Your task to perform on an android device: Go to ESPN.com Image 0: 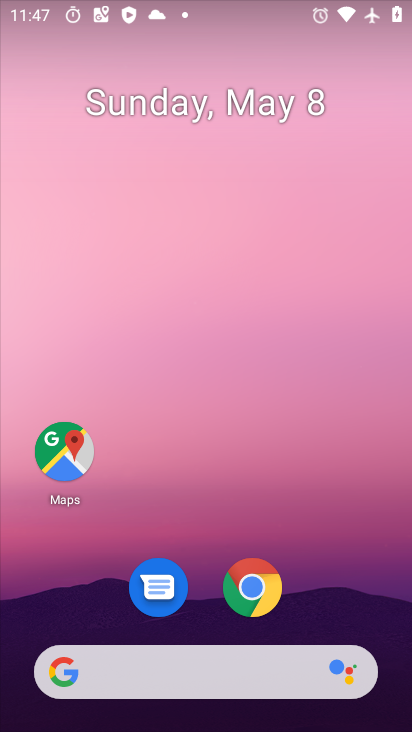
Step 0: click (263, 589)
Your task to perform on an android device: Go to ESPN.com Image 1: 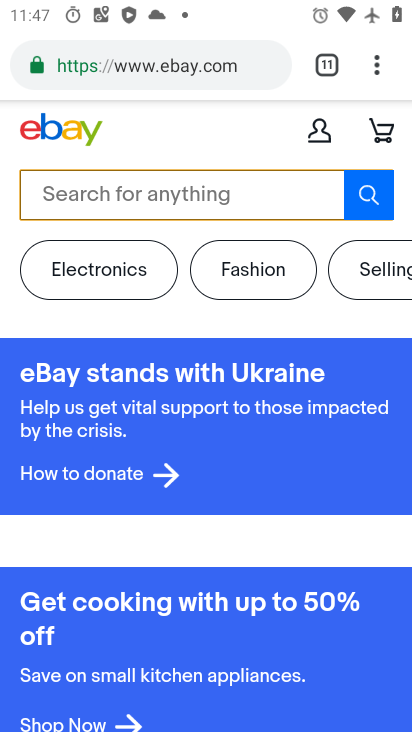
Step 1: drag from (379, 62) to (116, 132)
Your task to perform on an android device: Go to ESPN.com Image 2: 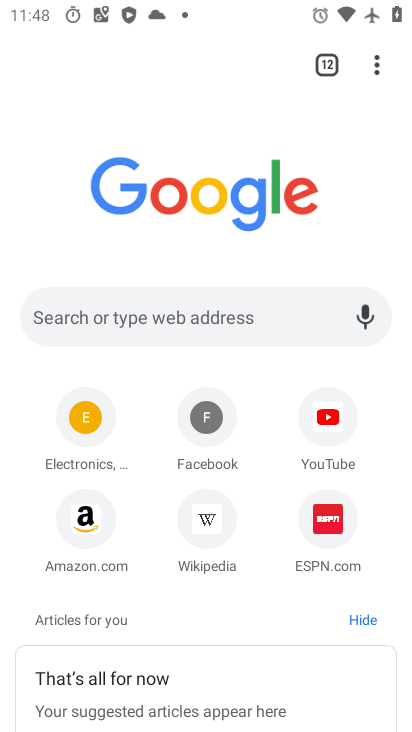
Step 2: click (320, 520)
Your task to perform on an android device: Go to ESPN.com Image 3: 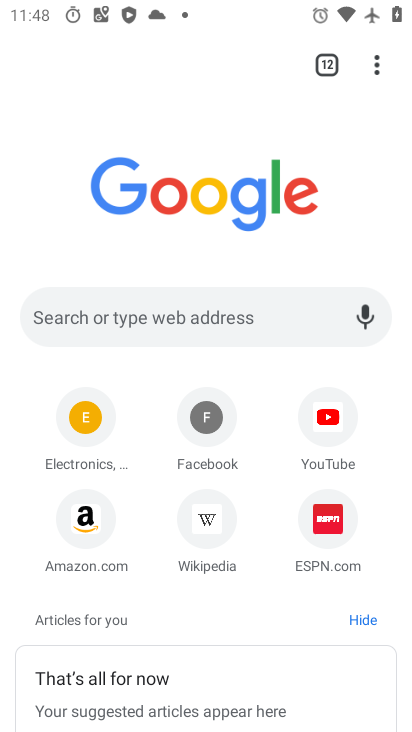
Step 3: click (328, 523)
Your task to perform on an android device: Go to ESPN.com Image 4: 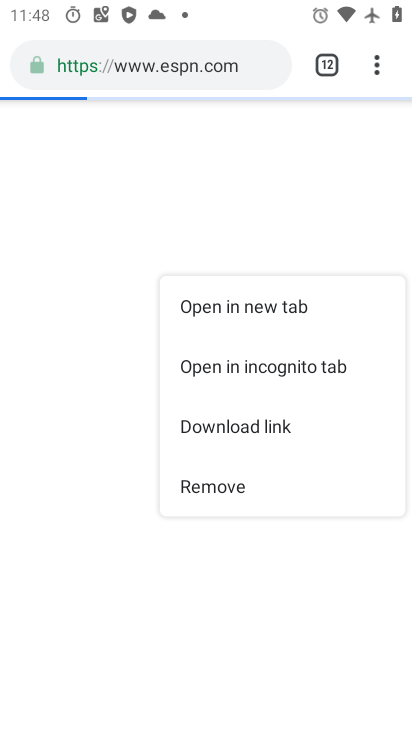
Step 4: click (326, 487)
Your task to perform on an android device: Go to ESPN.com Image 5: 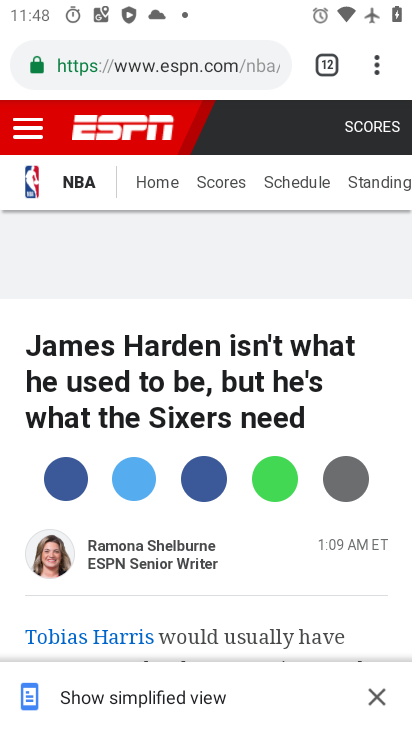
Step 5: task complete